Your task to perform on an android device: What is the news today? Image 0: 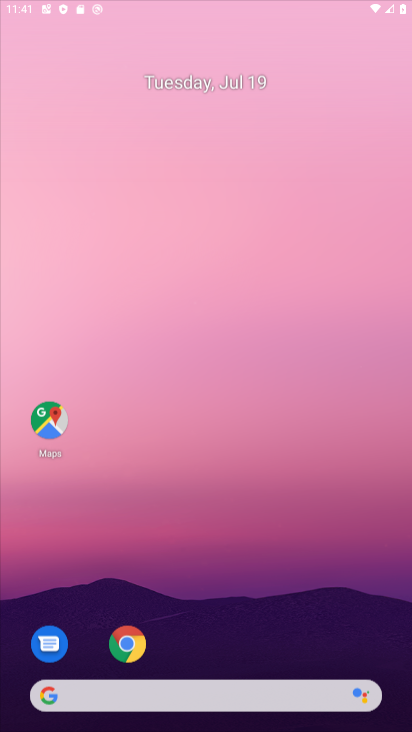
Step 0: click (93, 691)
Your task to perform on an android device: What is the news today? Image 1: 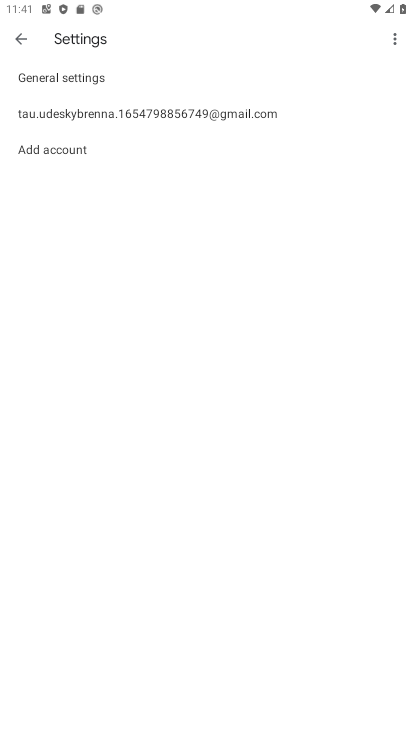
Step 1: press home button
Your task to perform on an android device: What is the news today? Image 2: 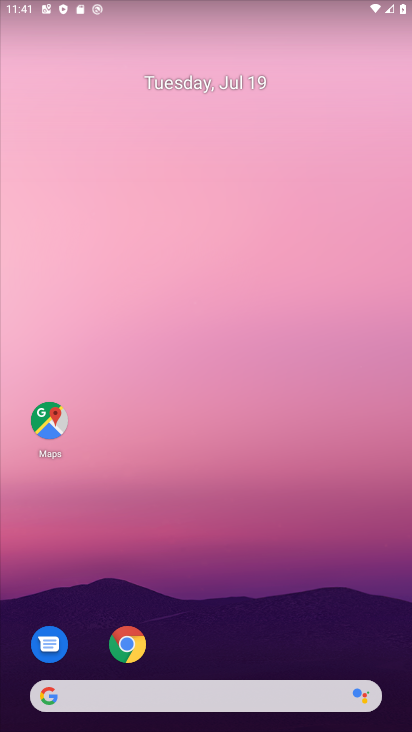
Step 2: click (84, 699)
Your task to perform on an android device: What is the news today? Image 3: 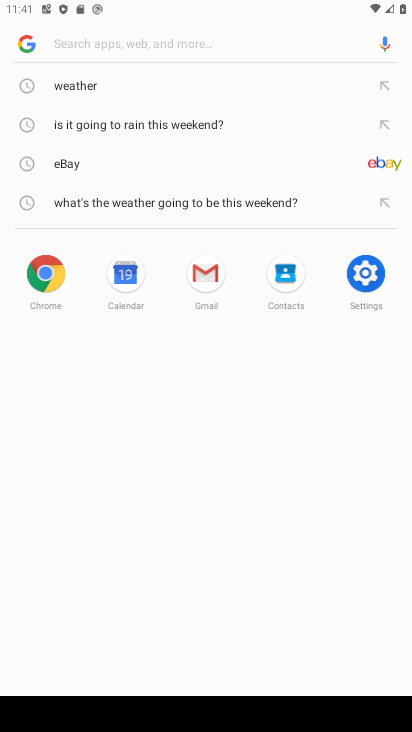
Step 3: type "What is the news today?"
Your task to perform on an android device: What is the news today? Image 4: 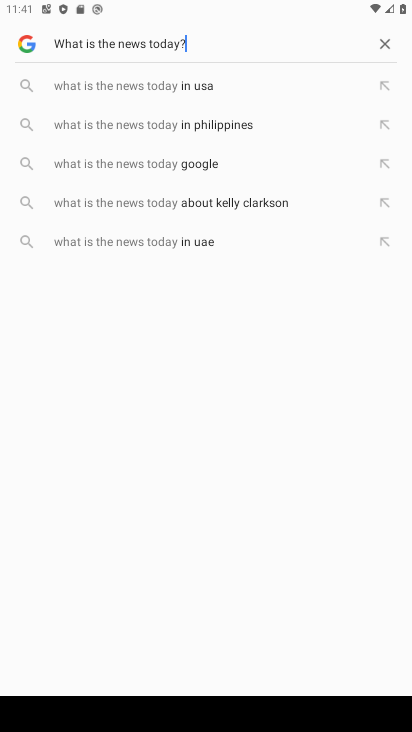
Step 4: type ""
Your task to perform on an android device: What is the news today? Image 5: 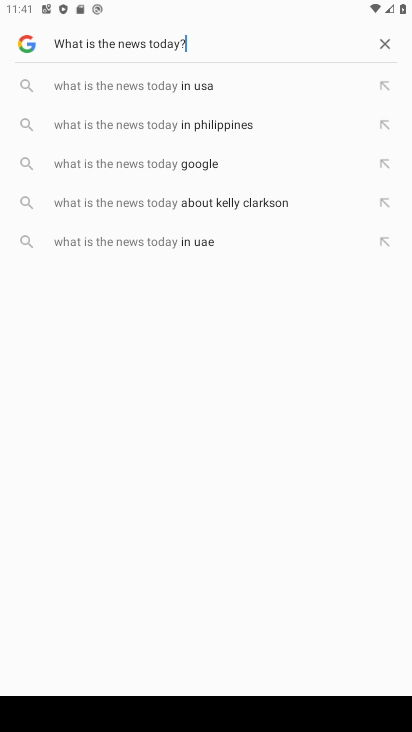
Step 5: type ""
Your task to perform on an android device: What is the news today? Image 6: 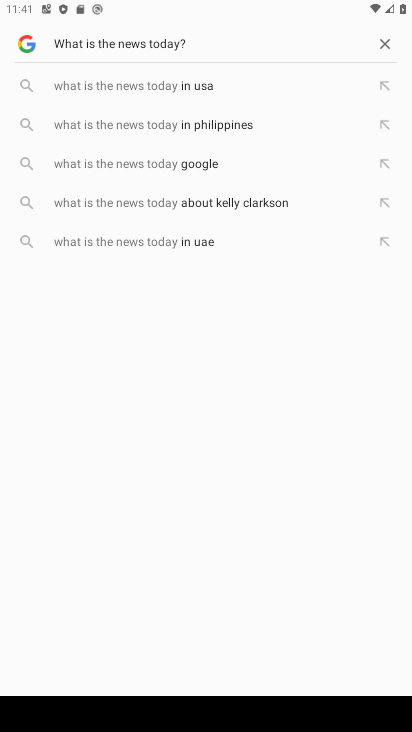
Step 6: task complete